Your task to perform on an android device: Clear the cart on costco.com. Search for "razer deathadder" on costco.com, select the first entry, add it to the cart, then select checkout. Image 0: 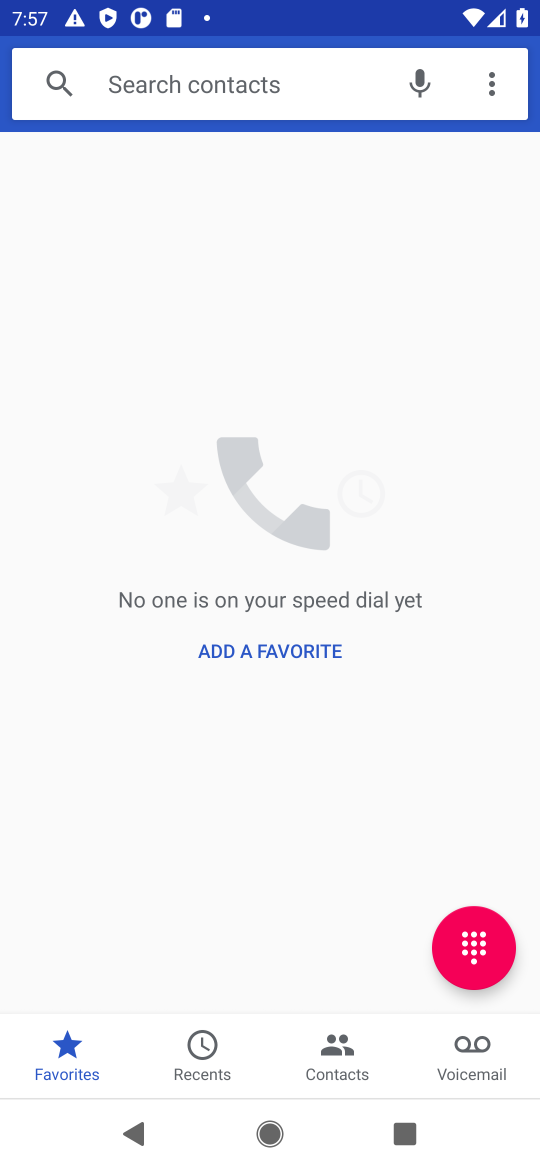
Step 0: task complete